Your task to perform on an android device: Open calendar and show me the fourth week of next month Image 0: 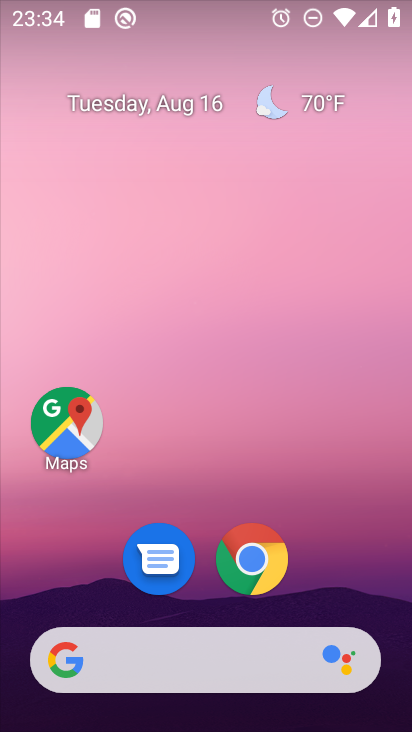
Step 0: drag from (175, 658) to (234, 195)
Your task to perform on an android device: Open calendar and show me the fourth week of next month Image 1: 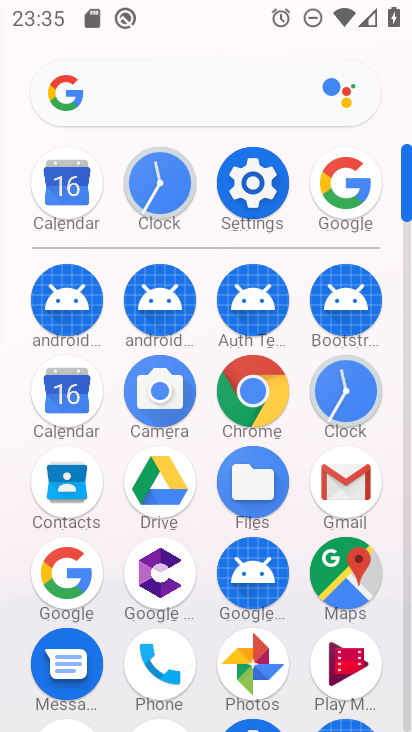
Step 1: click (64, 398)
Your task to perform on an android device: Open calendar and show me the fourth week of next month Image 2: 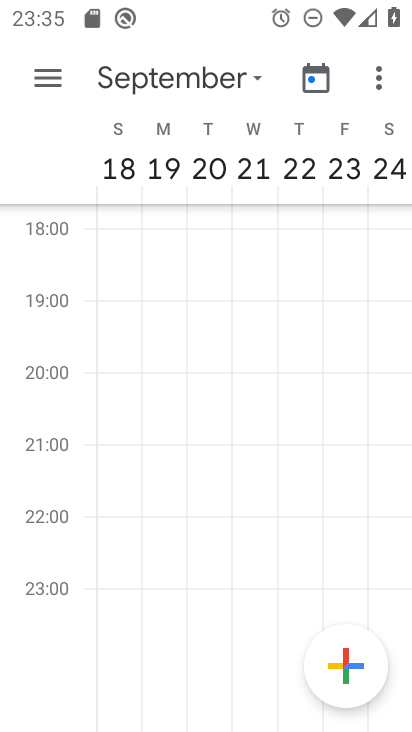
Step 2: click (318, 82)
Your task to perform on an android device: Open calendar and show me the fourth week of next month Image 3: 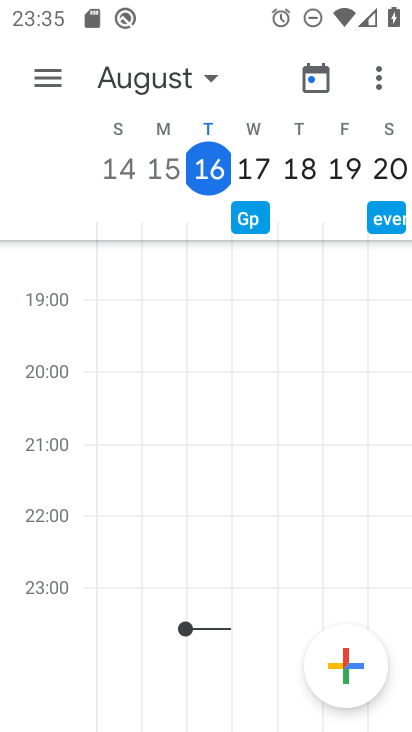
Step 3: click (208, 81)
Your task to perform on an android device: Open calendar and show me the fourth week of next month Image 4: 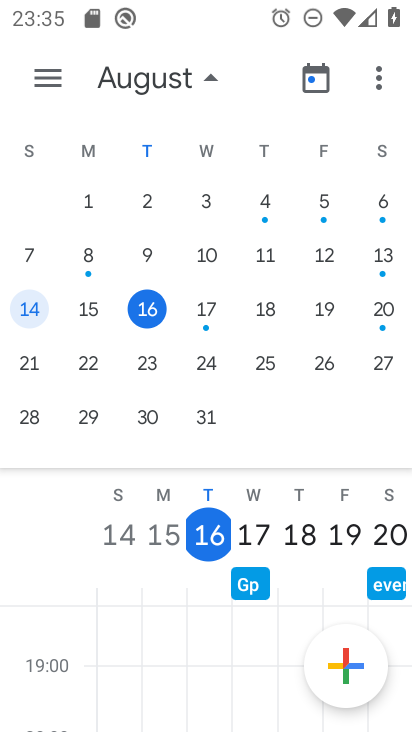
Step 4: drag from (371, 332) to (16, 340)
Your task to perform on an android device: Open calendar and show me the fourth week of next month Image 5: 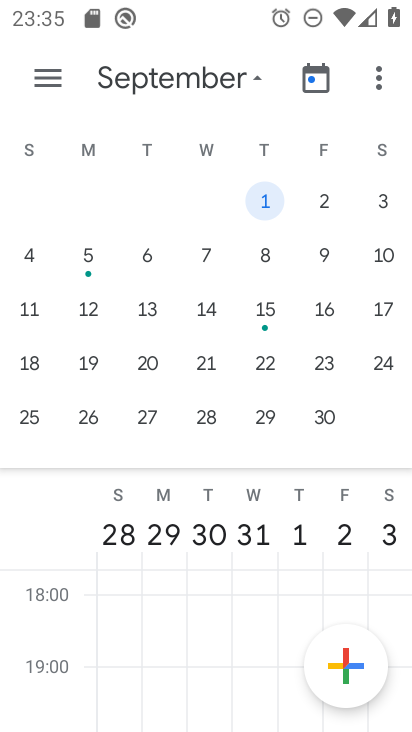
Step 5: click (99, 417)
Your task to perform on an android device: Open calendar and show me the fourth week of next month Image 6: 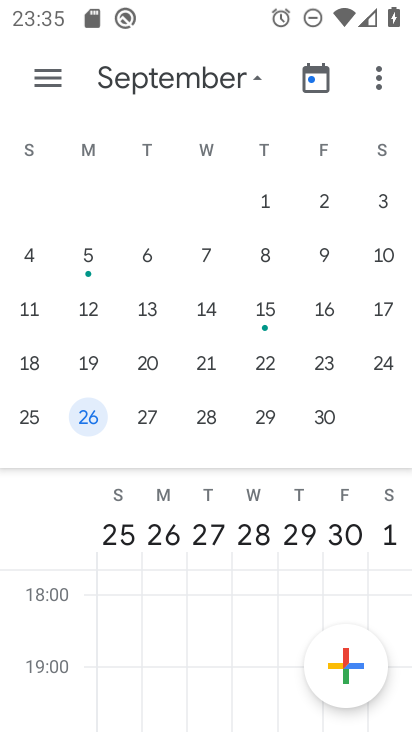
Step 6: click (40, 78)
Your task to perform on an android device: Open calendar and show me the fourth week of next month Image 7: 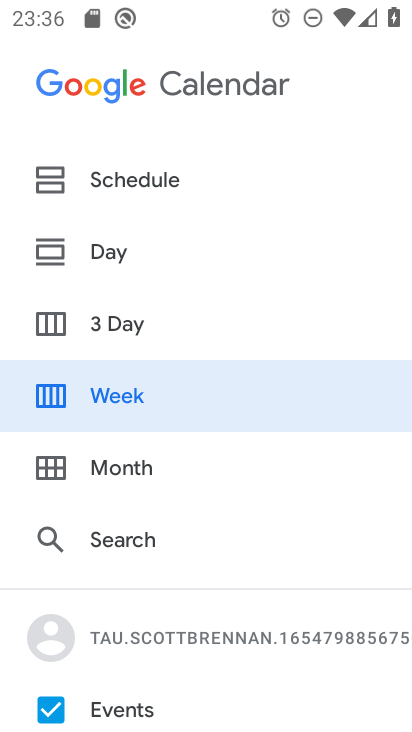
Step 7: click (98, 406)
Your task to perform on an android device: Open calendar and show me the fourth week of next month Image 8: 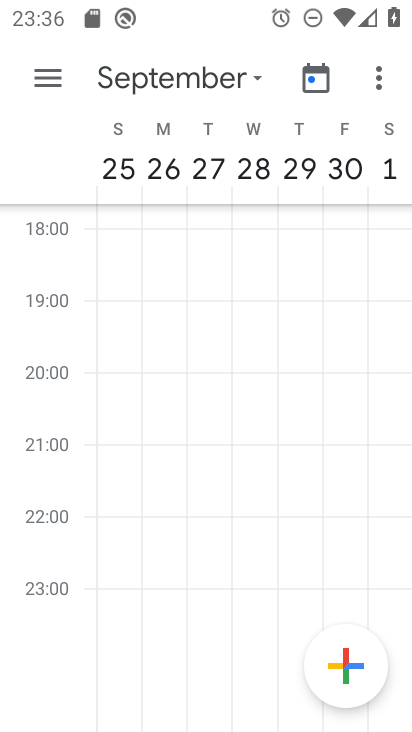
Step 8: task complete